Your task to perform on an android device: Open network settings Image 0: 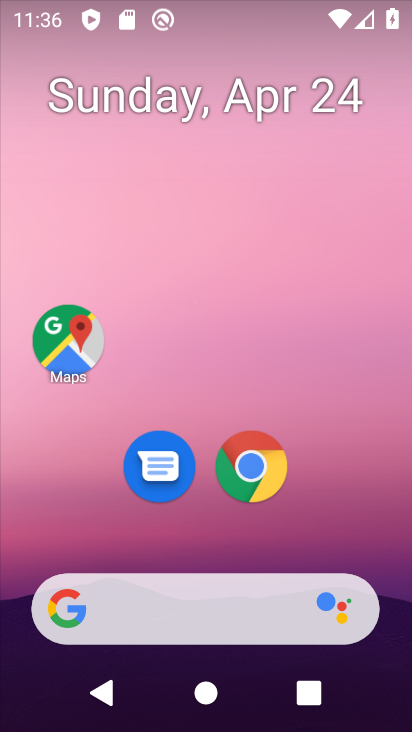
Step 0: drag from (335, 477) to (390, 95)
Your task to perform on an android device: Open network settings Image 1: 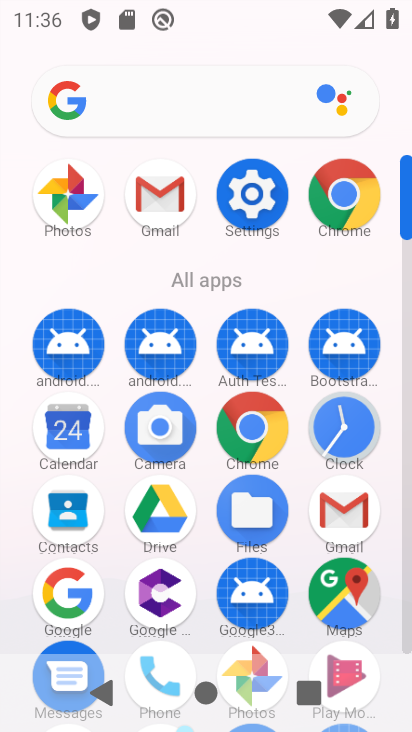
Step 1: drag from (193, 283) to (191, 144)
Your task to perform on an android device: Open network settings Image 2: 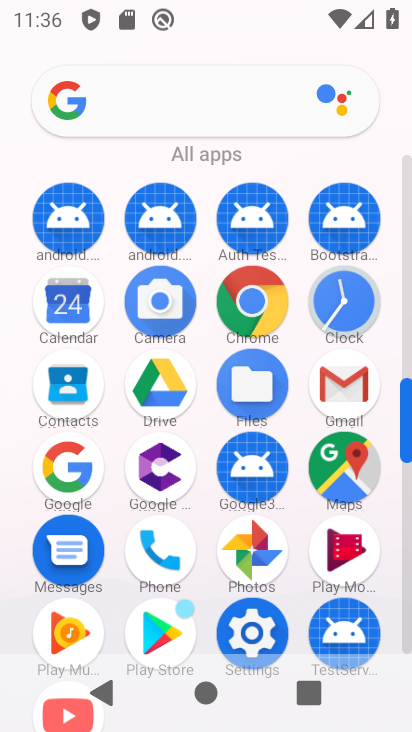
Step 2: click (244, 614)
Your task to perform on an android device: Open network settings Image 3: 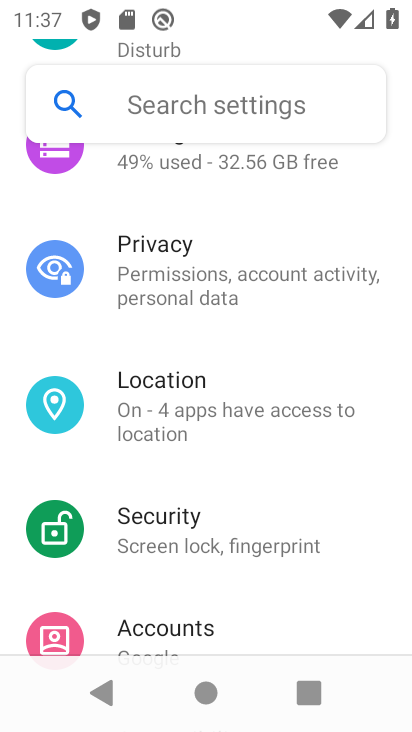
Step 3: drag from (233, 560) to (206, 687)
Your task to perform on an android device: Open network settings Image 4: 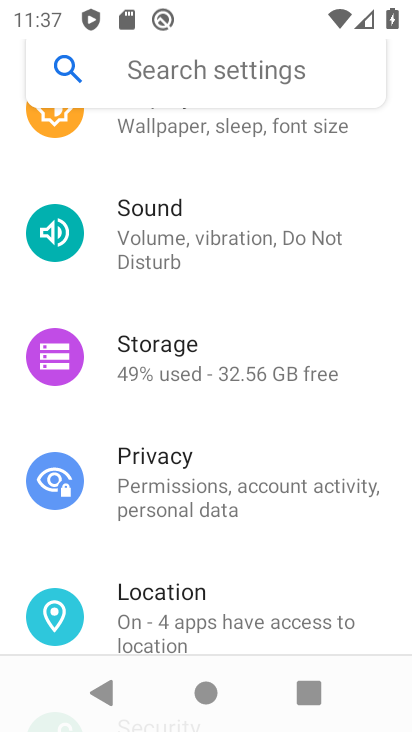
Step 4: drag from (198, 188) to (156, 697)
Your task to perform on an android device: Open network settings Image 5: 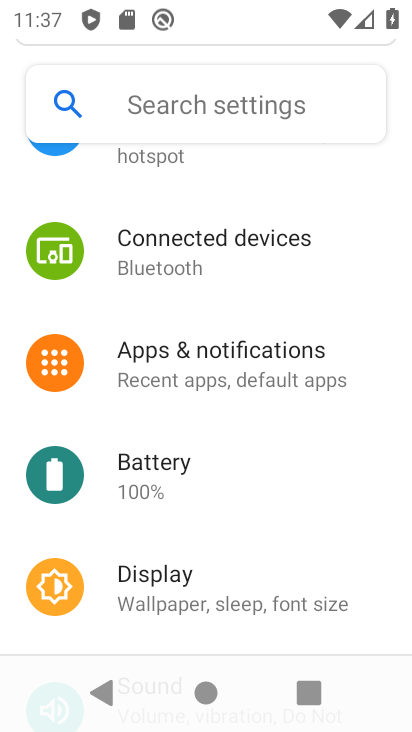
Step 5: drag from (209, 201) to (191, 508)
Your task to perform on an android device: Open network settings Image 6: 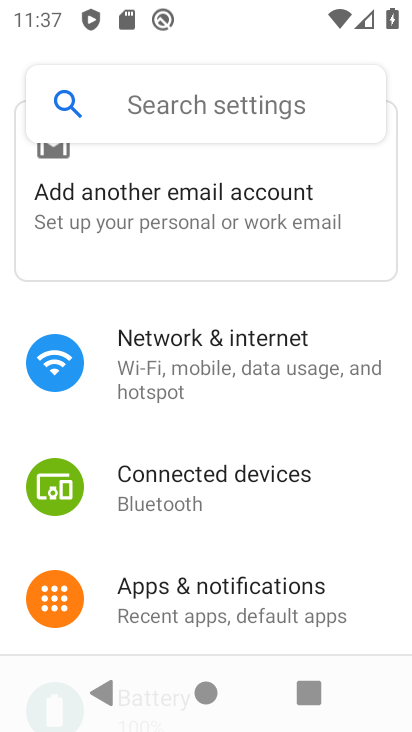
Step 6: click (199, 367)
Your task to perform on an android device: Open network settings Image 7: 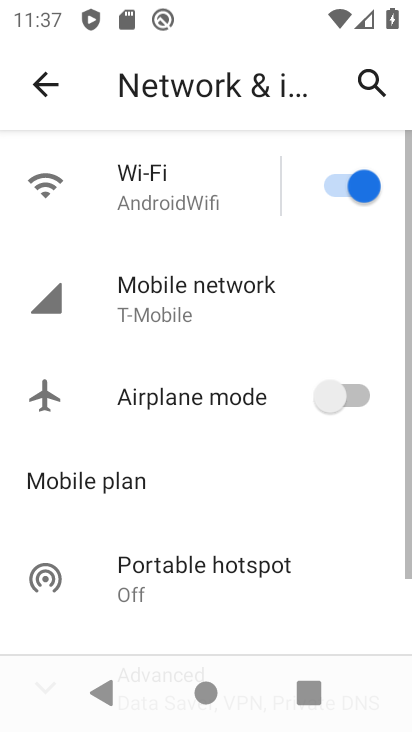
Step 7: task complete